Your task to perform on an android device: Open Android settings Image 0: 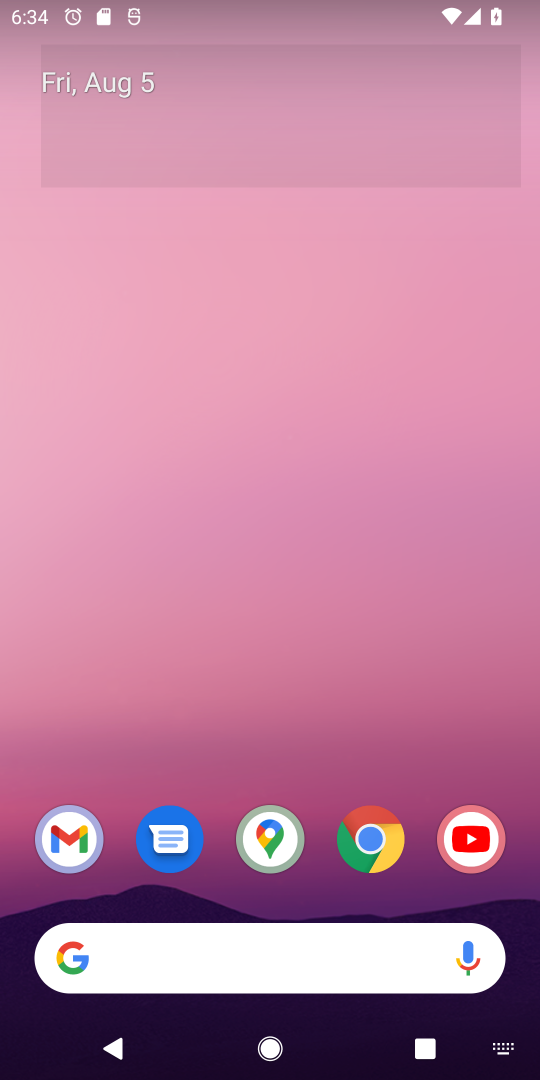
Step 0: drag from (242, 768) to (222, 204)
Your task to perform on an android device: Open Android settings Image 1: 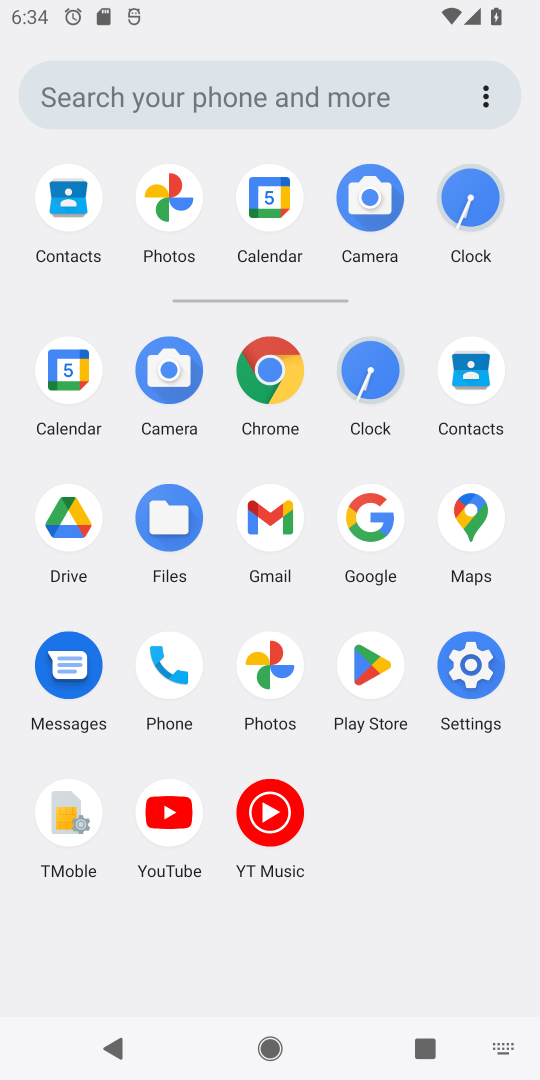
Step 1: click (482, 657)
Your task to perform on an android device: Open Android settings Image 2: 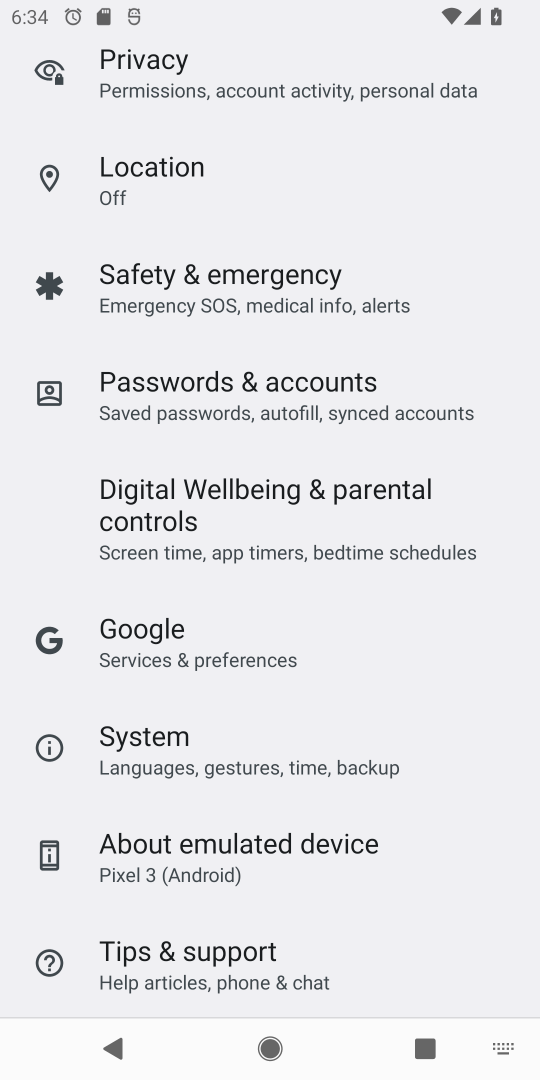
Step 2: task complete